Your task to perform on an android device: Search for pizza restaurants on Maps Image 0: 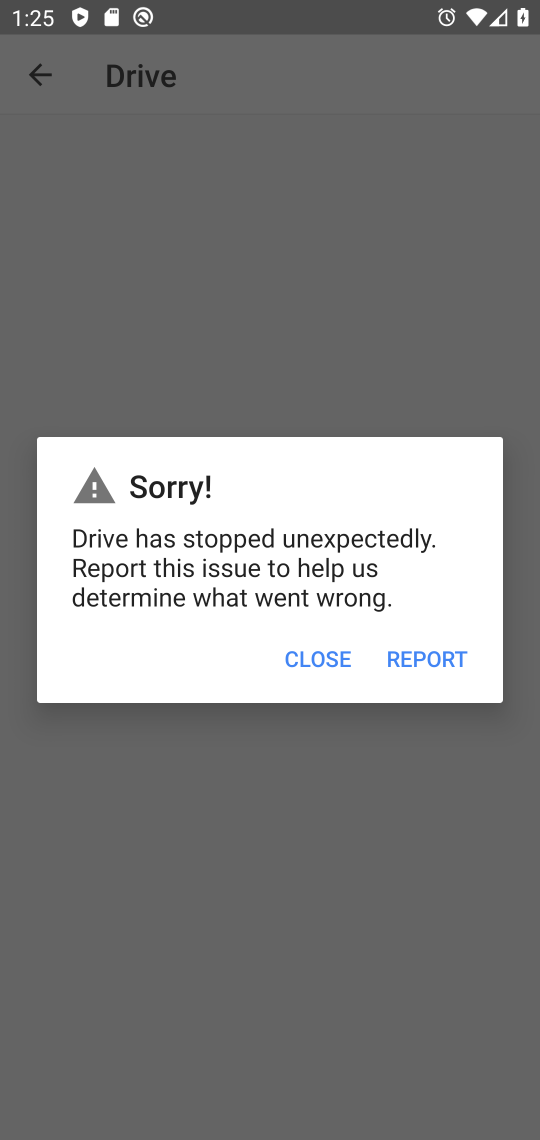
Step 0: press home button
Your task to perform on an android device: Search for pizza restaurants on Maps Image 1: 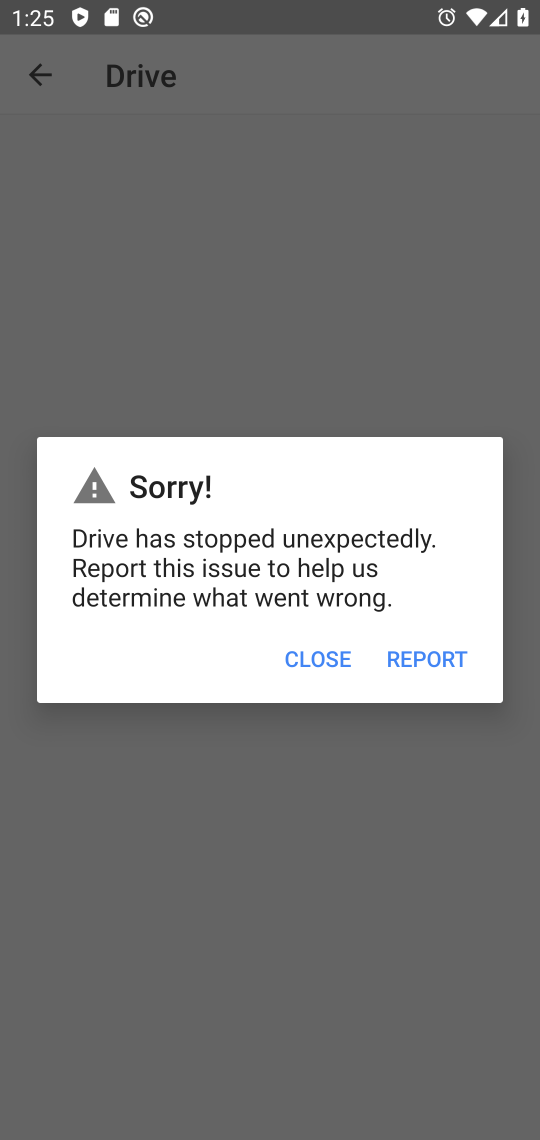
Step 1: press home button
Your task to perform on an android device: Search for pizza restaurants on Maps Image 2: 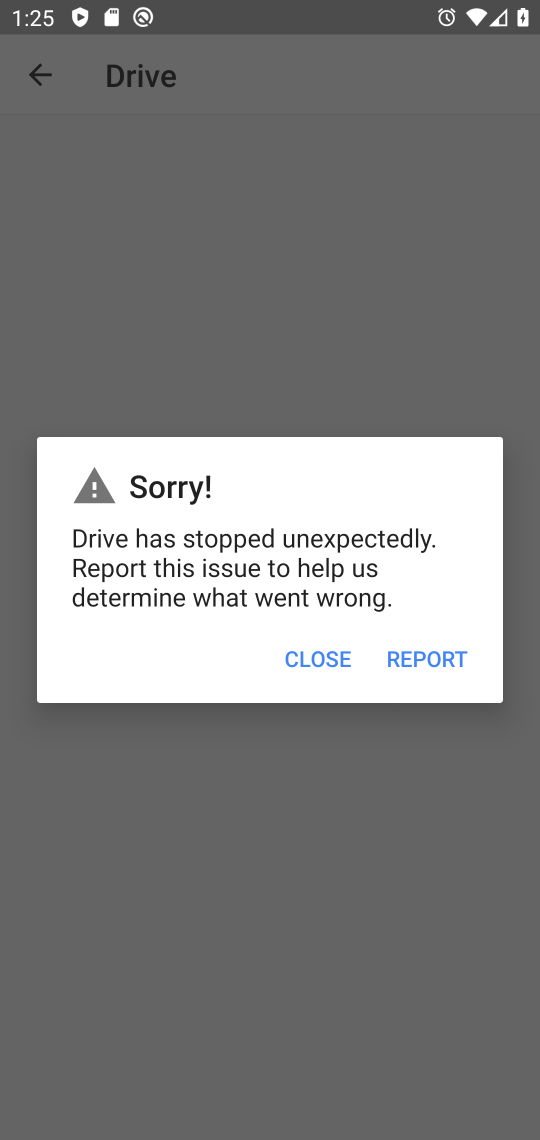
Step 2: click (348, 3)
Your task to perform on an android device: Search for pizza restaurants on Maps Image 3: 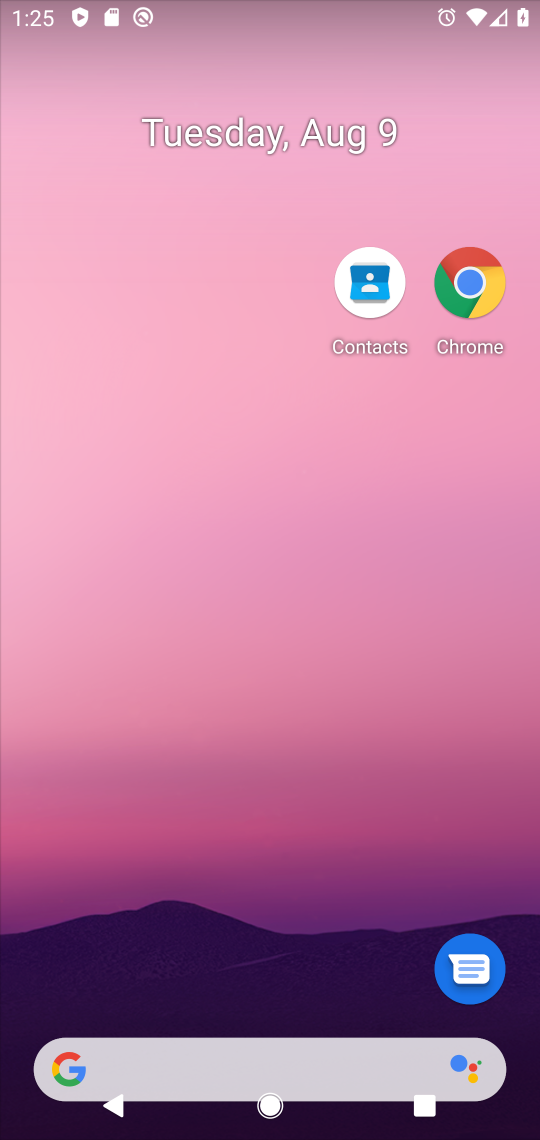
Step 3: drag from (220, 849) to (316, 227)
Your task to perform on an android device: Search for pizza restaurants on Maps Image 4: 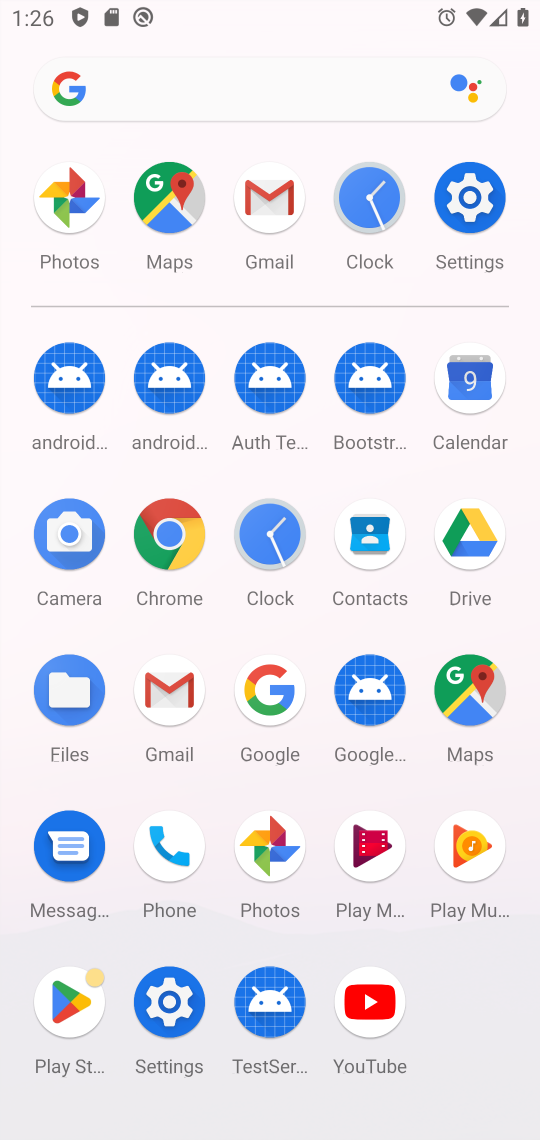
Step 4: drag from (308, 774) to (308, 498)
Your task to perform on an android device: Search for pizza restaurants on Maps Image 5: 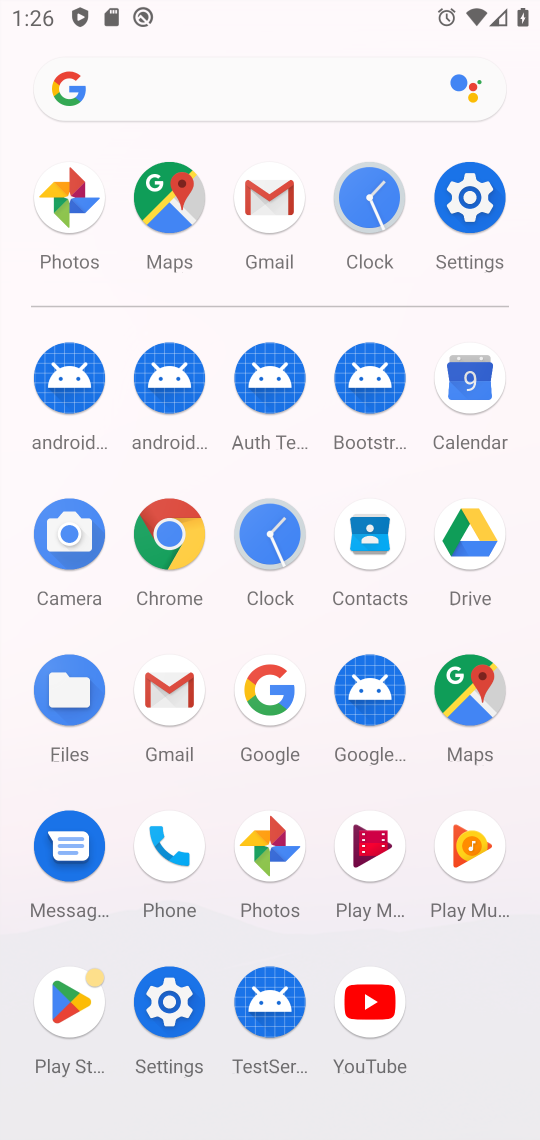
Step 5: drag from (299, 937) to (279, 407)
Your task to perform on an android device: Search for pizza restaurants on Maps Image 6: 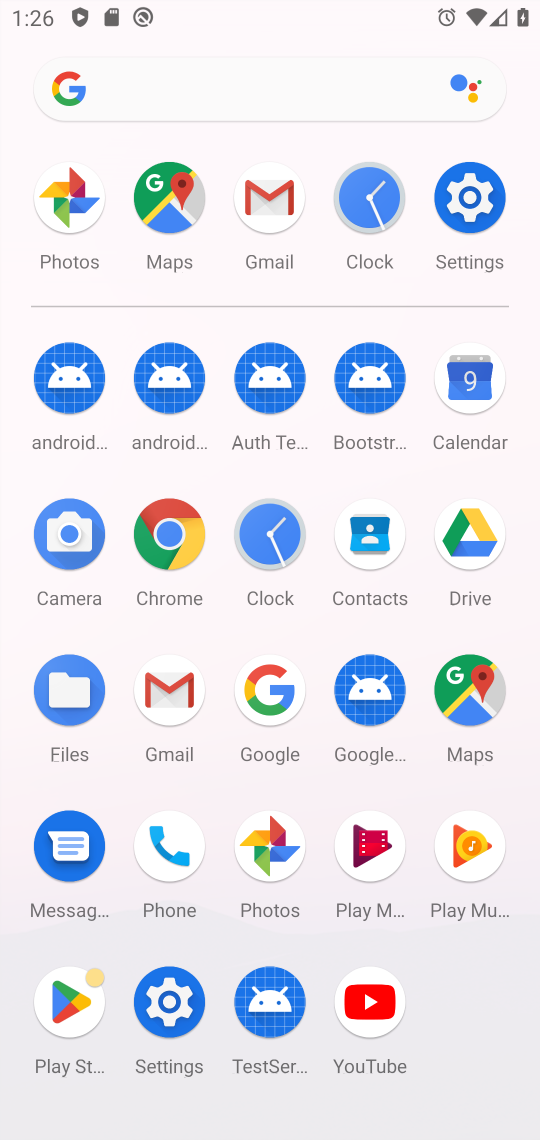
Step 6: click (468, 681)
Your task to perform on an android device: Search for pizza restaurants on Maps Image 7: 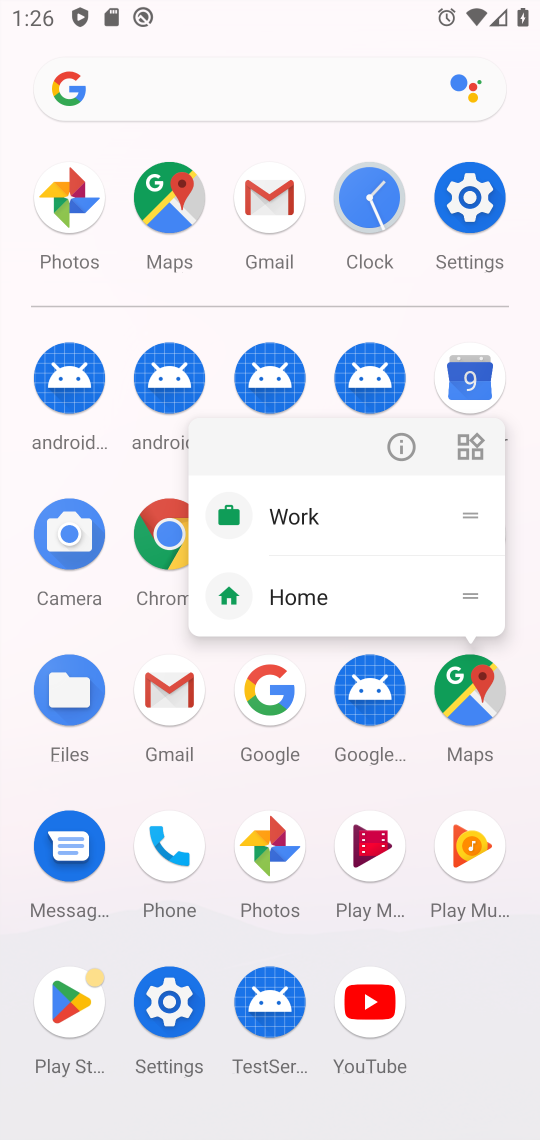
Step 7: click (396, 420)
Your task to perform on an android device: Search for pizza restaurants on Maps Image 8: 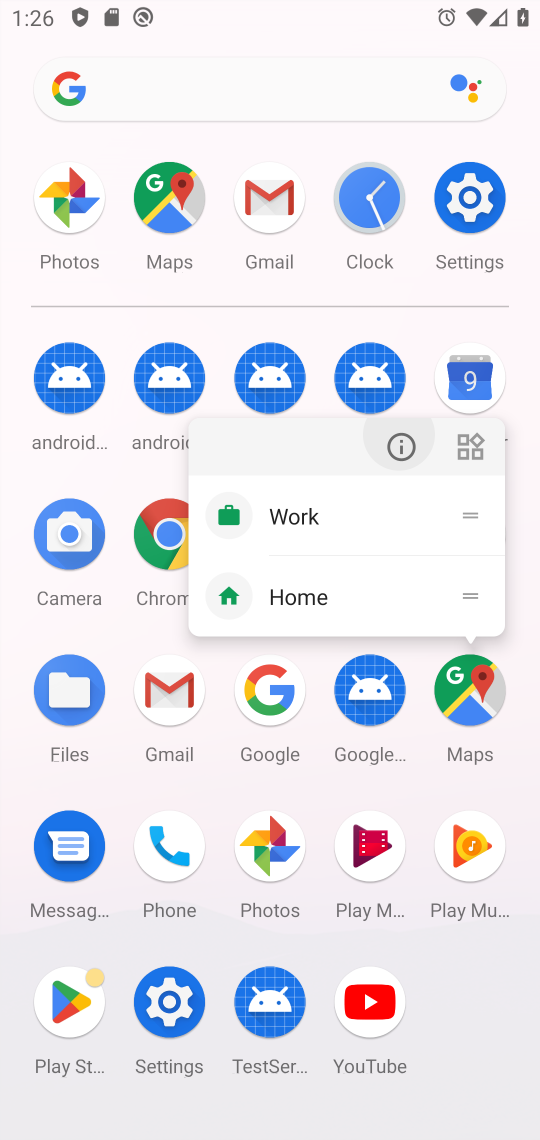
Step 8: click (409, 443)
Your task to perform on an android device: Search for pizza restaurants on Maps Image 9: 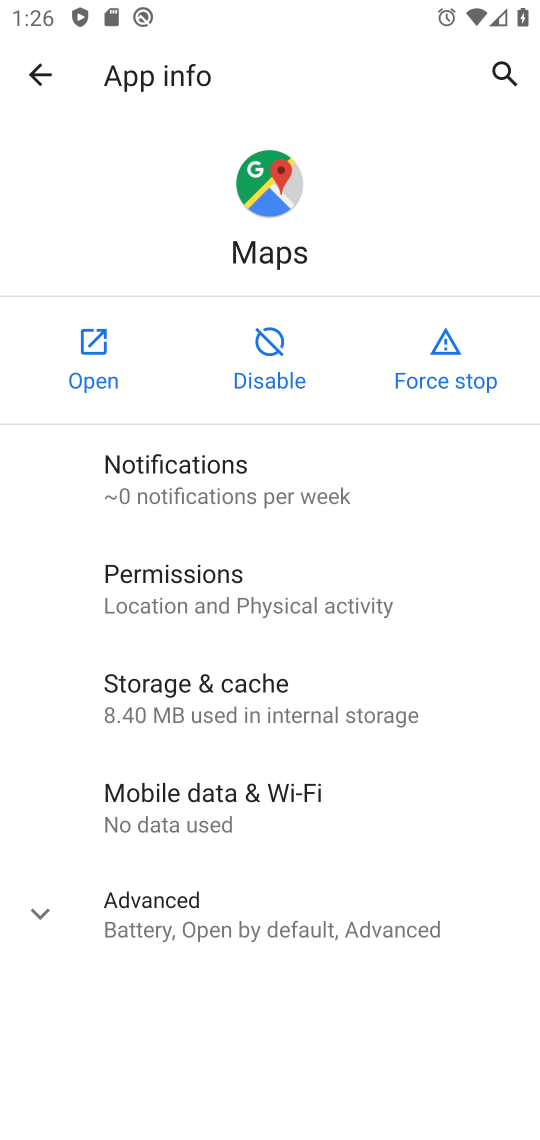
Step 9: click (99, 341)
Your task to perform on an android device: Search for pizza restaurants on Maps Image 10: 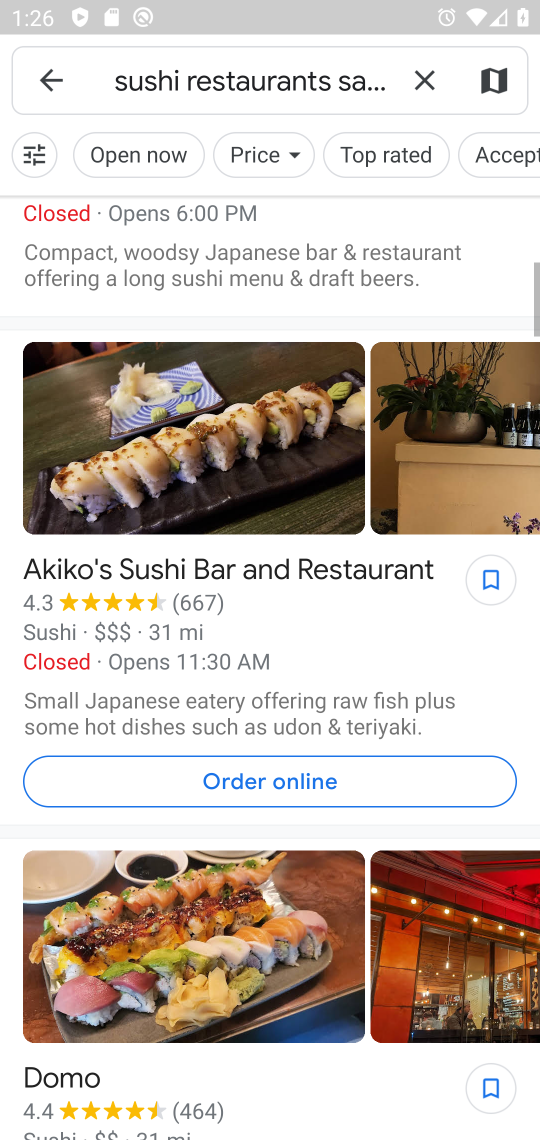
Step 10: drag from (315, 547) to (319, 413)
Your task to perform on an android device: Search for pizza restaurants on Maps Image 11: 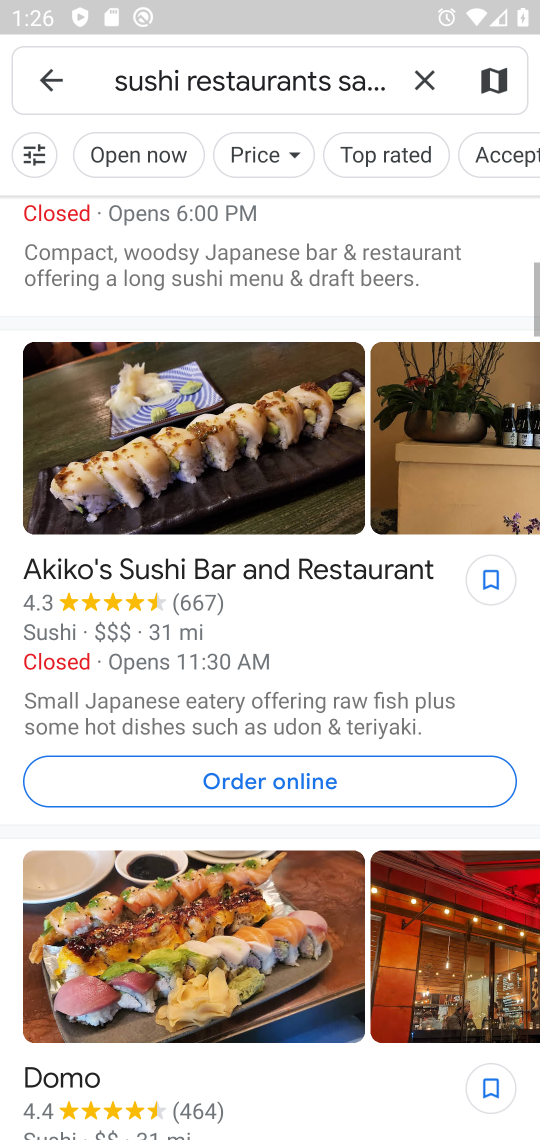
Step 11: drag from (320, 318) to (312, 1073)
Your task to perform on an android device: Search for pizza restaurants on Maps Image 12: 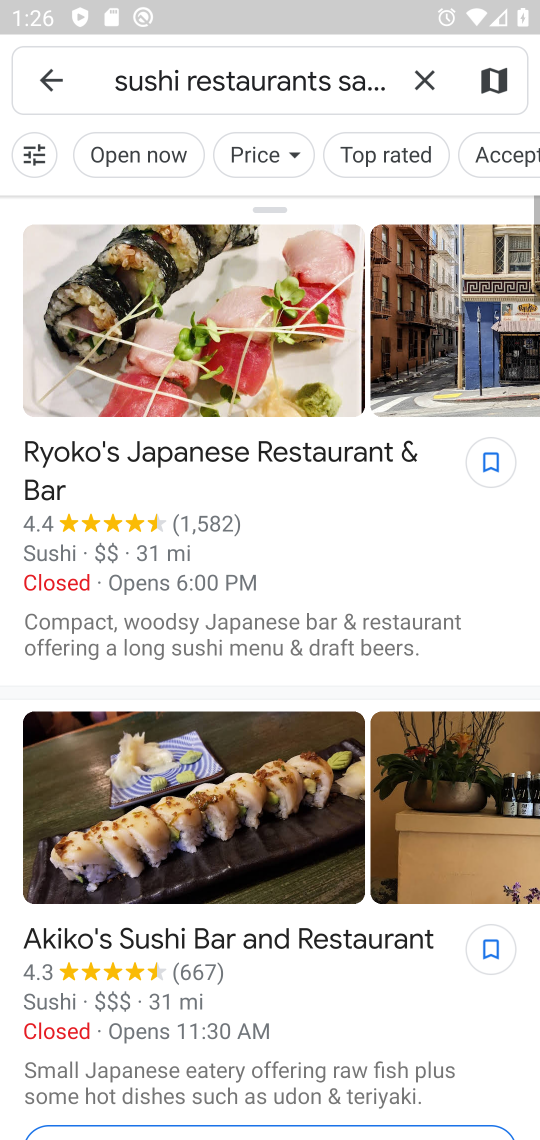
Step 12: drag from (335, 540) to (361, 1124)
Your task to perform on an android device: Search for pizza restaurants on Maps Image 13: 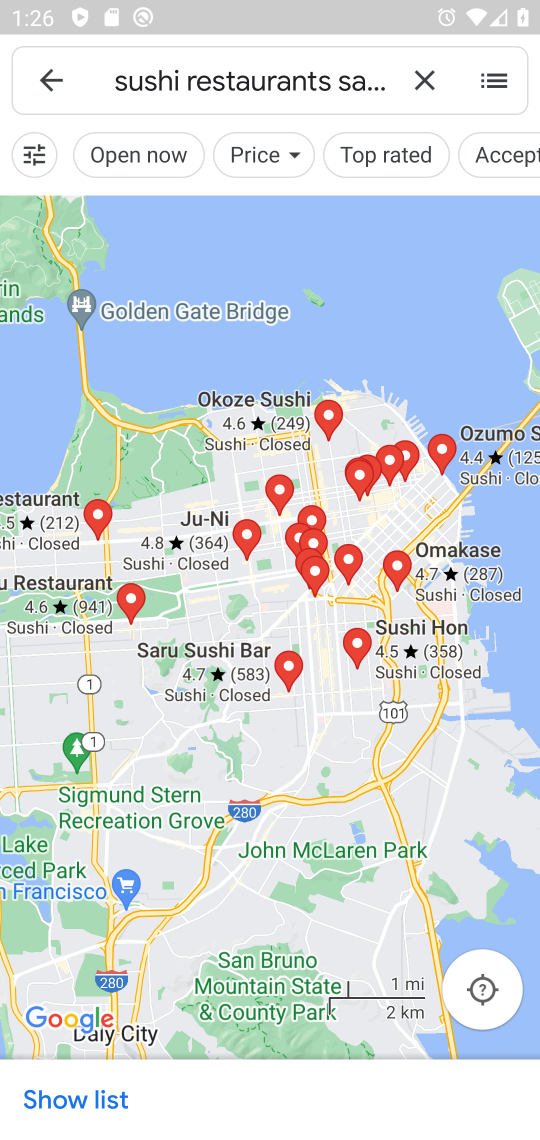
Step 13: drag from (327, 871) to (382, 287)
Your task to perform on an android device: Search for pizza restaurants on Maps Image 14: 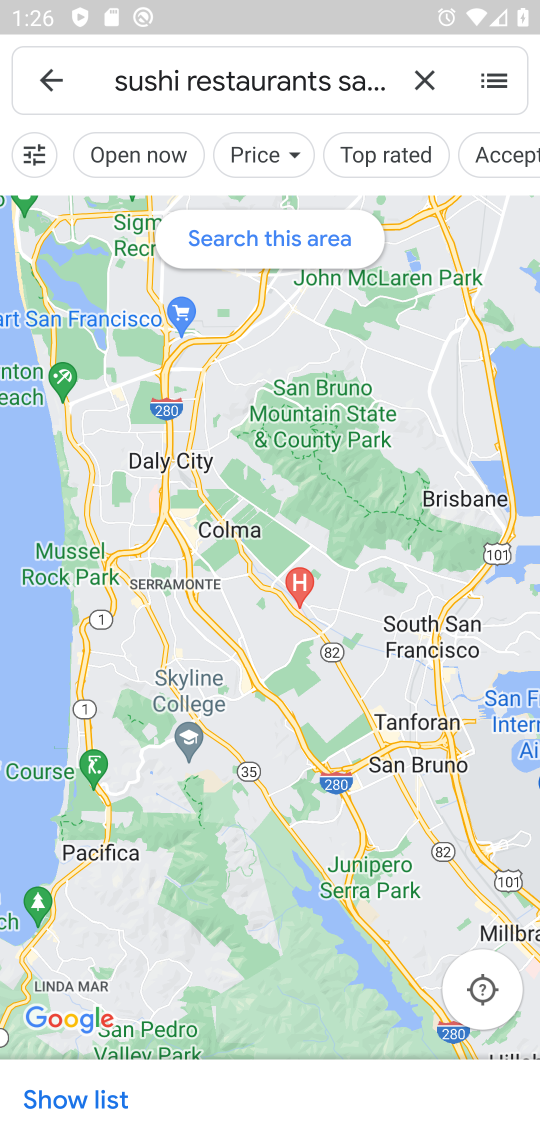
Step 14: click (422, 89)
Your task to perform on an android device: Search for pizza restaurants on Maps Image 15: 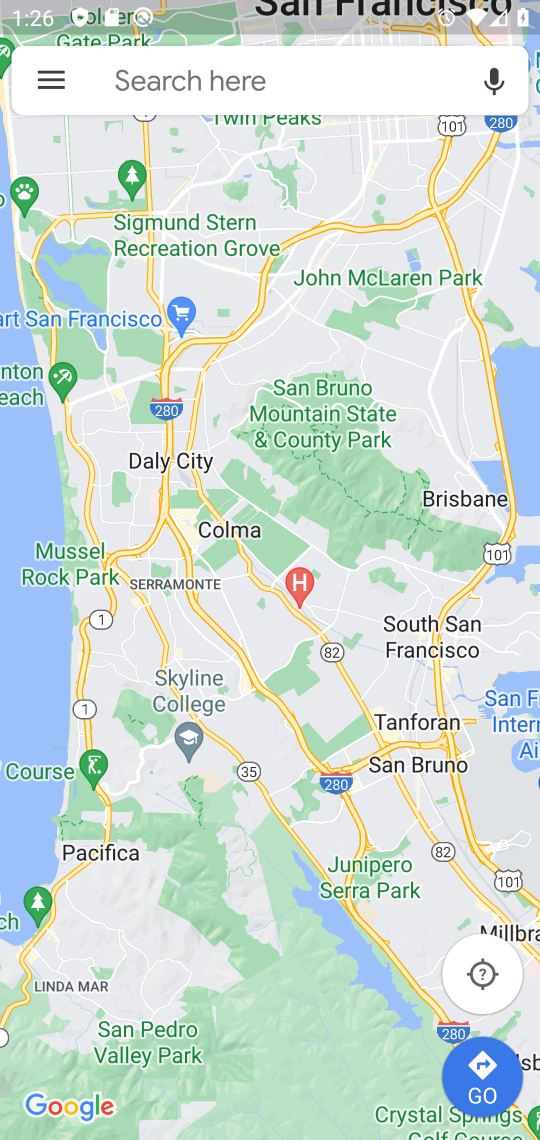
Step 15: click (218, 98)
Your task to perform on an android device: Search for pizza restaurants on Maps Image 16: 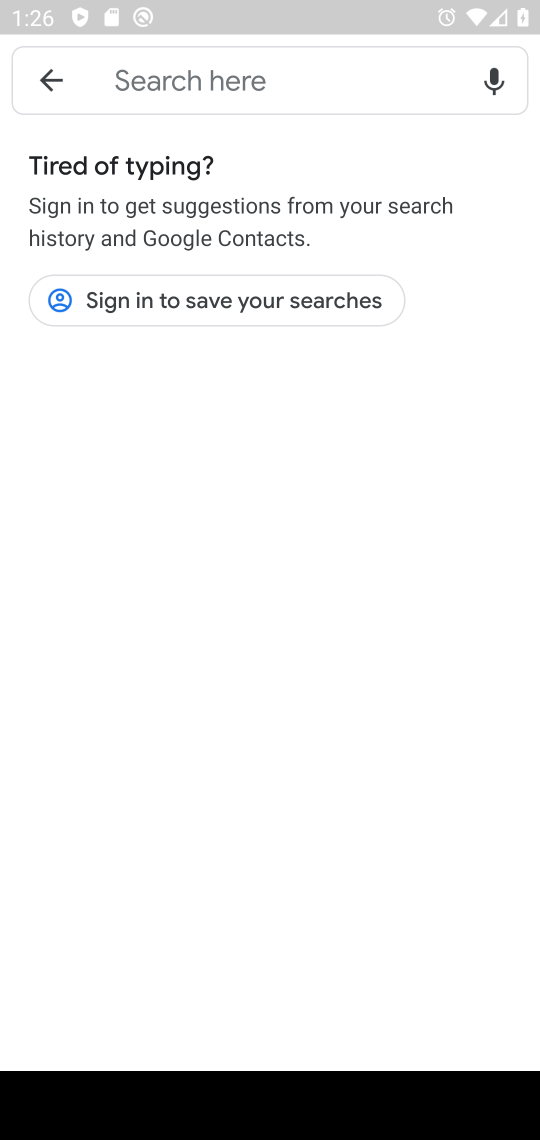
Step 16: type "pizza restaurants"
Your task to perform on an android device: Search for pizza restaurants on Maps Image 17: 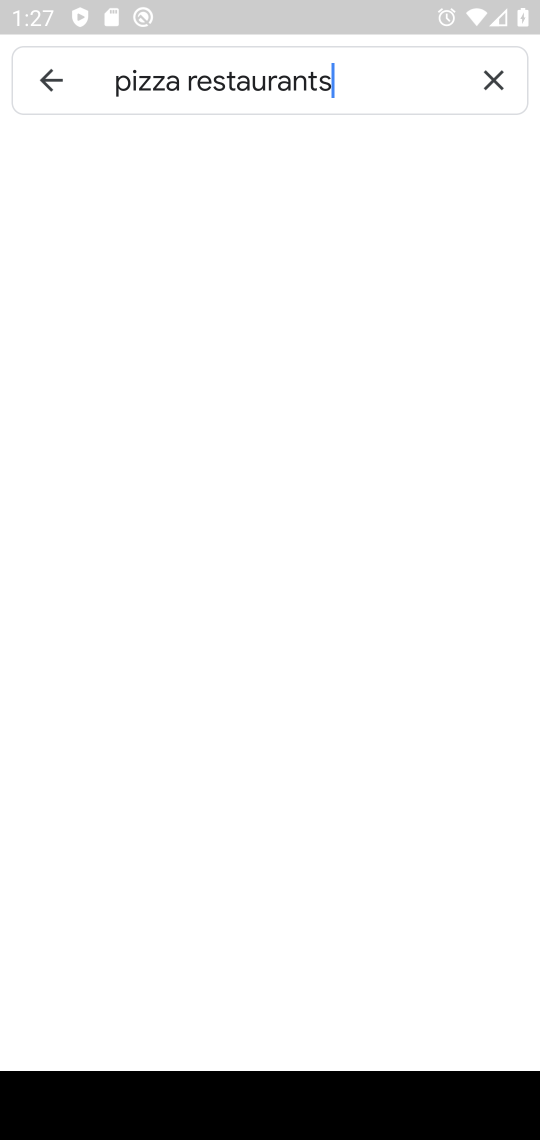
Step 17: type ""
Your task to perform on an android device: Search for pizza restaurants on Maps Image 18: 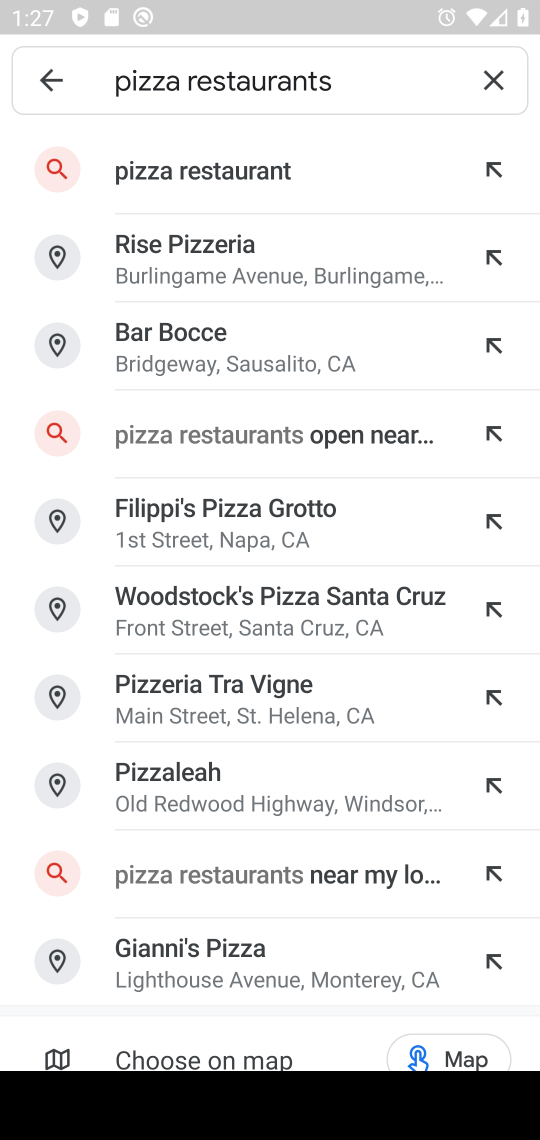
Step 18: click (215, 187)
Your task to perform on an android device: Search for pizza restaurants on Maps Image 19: 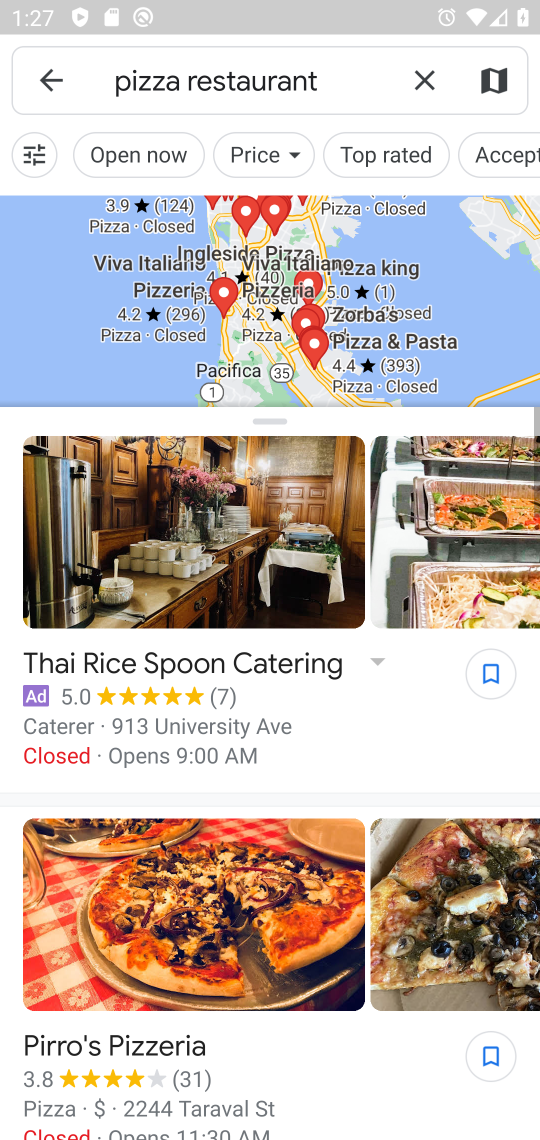
Step 19: drag from (300, 891) to (308, 381)
Your task to perform on an android device: Search for pizza restaurants on Maps Image 20: 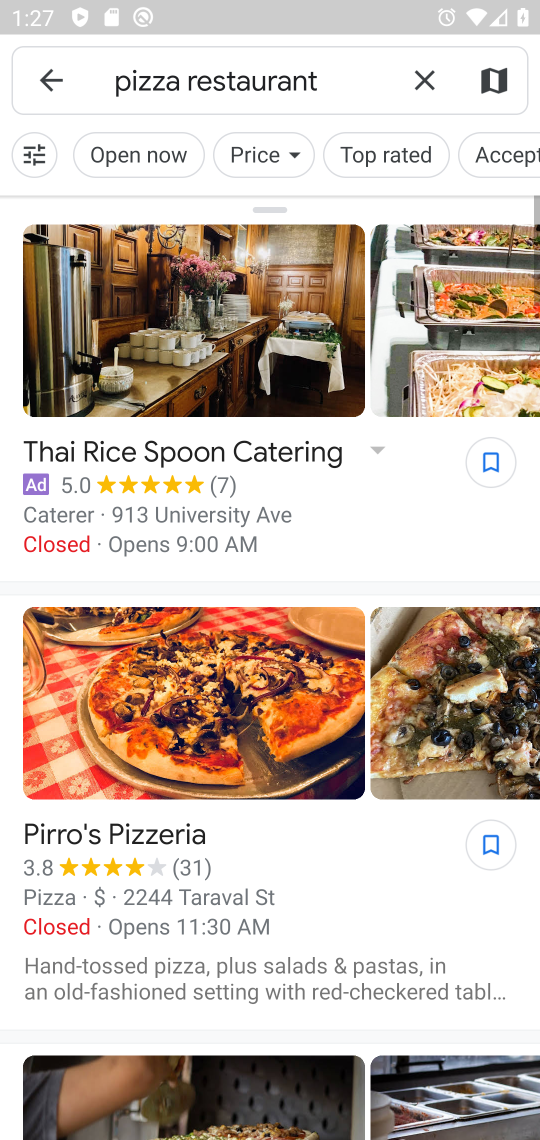
Step 20: drag from (310, 776) to (315, 417)
Your task to perform on an android device: Search for pizza restaurants on Maps Image 21: 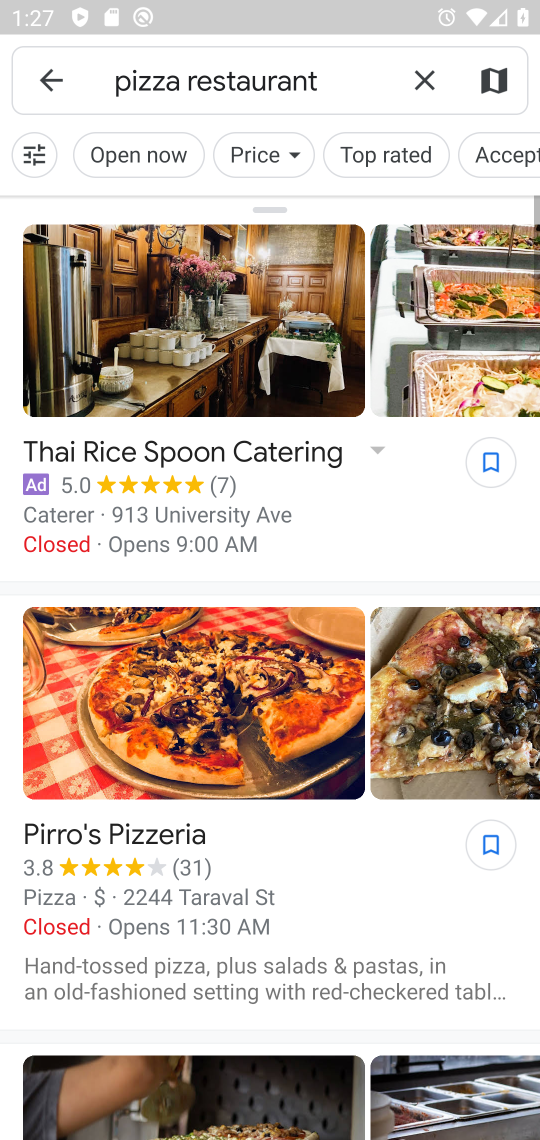
Step 21: drag from (349, 732) to (365, 438)
Your task to perform on an android device: Search for pizza restaurants on Maps Image 22: 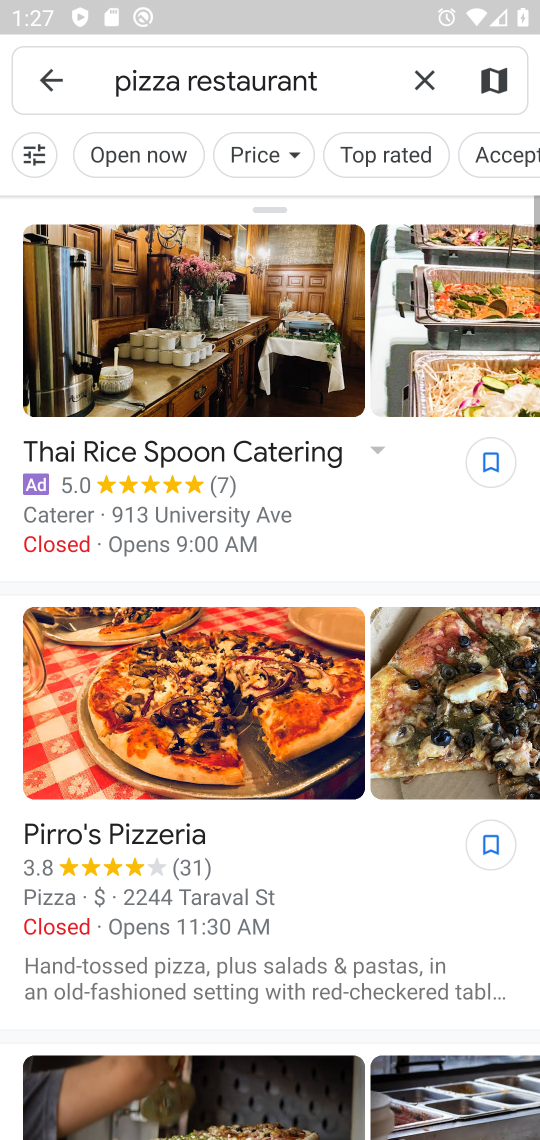
Step 22: click (383, 519)
Your task to perform on an android device: Search for pizza restaurants on Maps Image 23: 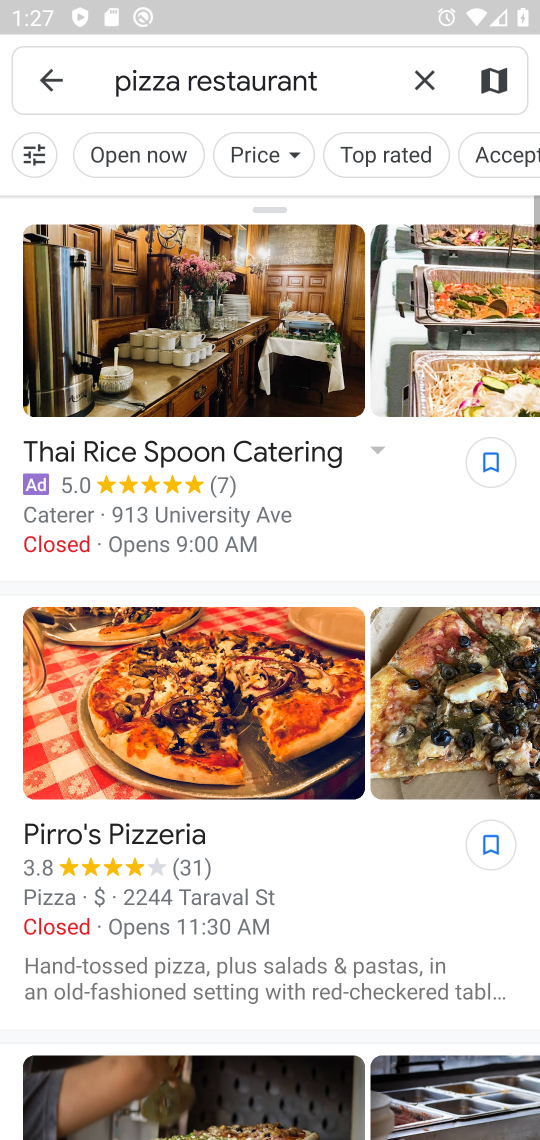
Step 23: task complete